Your task to perform on an android device: Go to Wikipedia Image 0: 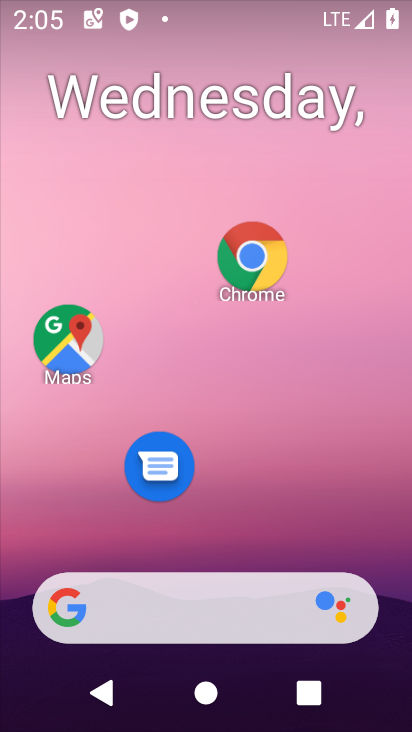
Step 0: drag from (258, 534) to (306, 81)
Your task to perform on an android device: Go to Wikipedia Image 1: 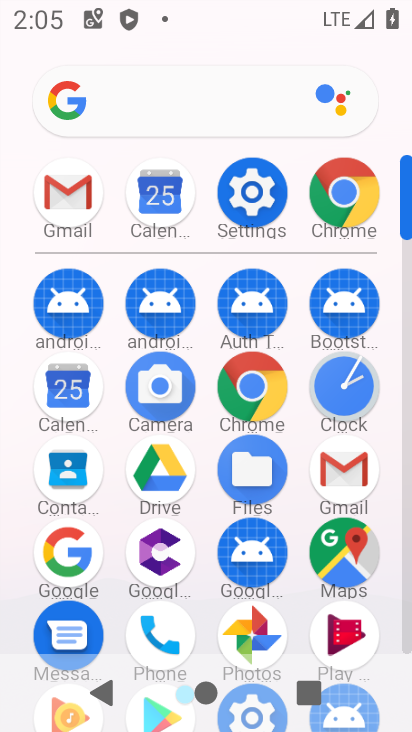
Step 1: click (255, 394)
Your task to perform on an android device: Go to Wikipedia Image 2: 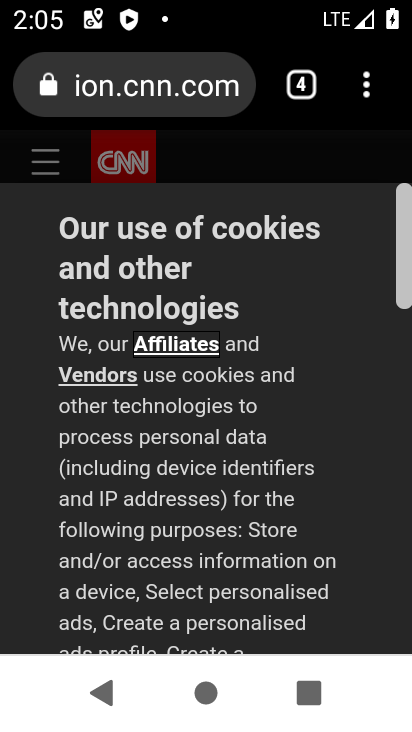
Step 2: drag from (368, 92) to (110, 178)
Your task to perform on an android device: Go to Wikipedia Image 3: 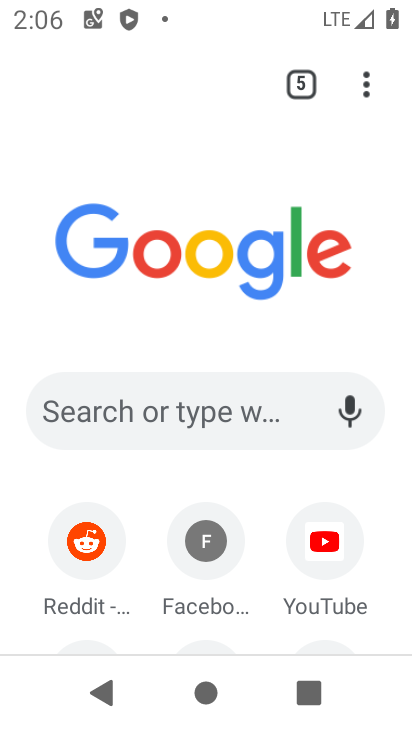
Step 3: click (146, 403)
Your task to perform on an android device: Go to Wikipedia Image 4: 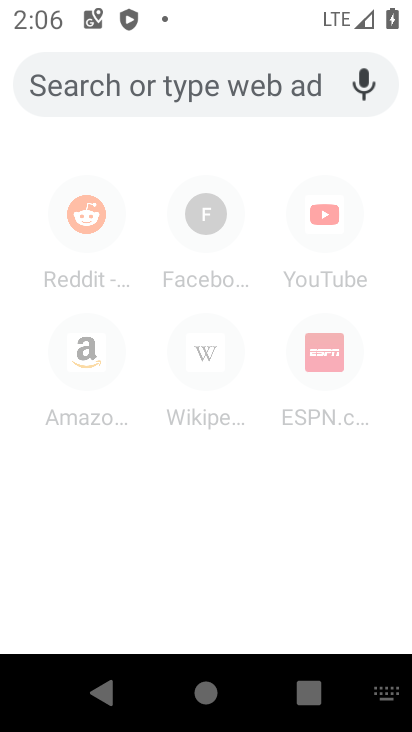
Step 4: type "Wikipedia"
Your task to perform on an android device: Go to Wikipedia Image 5: 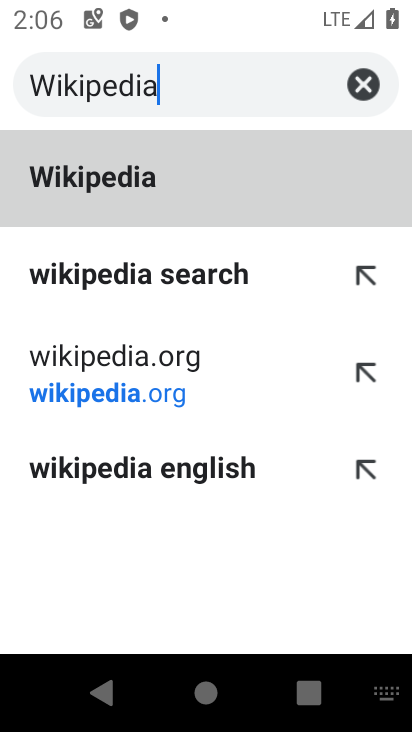
Step 5: click (156, 178)
Your task to perform on an android device: Go to Wikipedia Image 6: 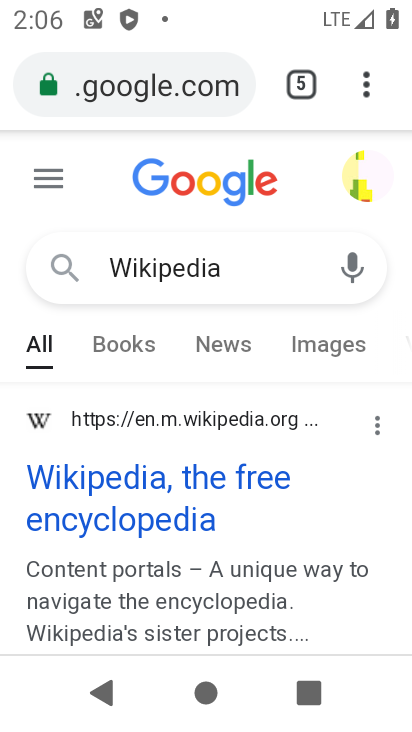
Step 6: click (91, 477)
Your task to perform on an android device: Go to Wikipedia Image 7: 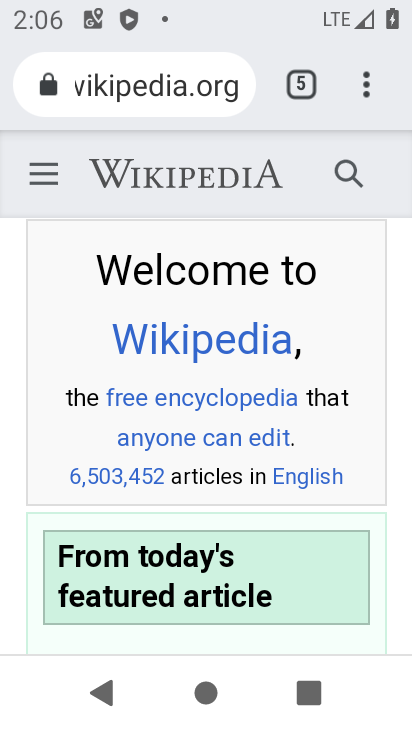
Step 7: task complete